Your task to perform on an android device: snooze an email in the gmail app Image 0: 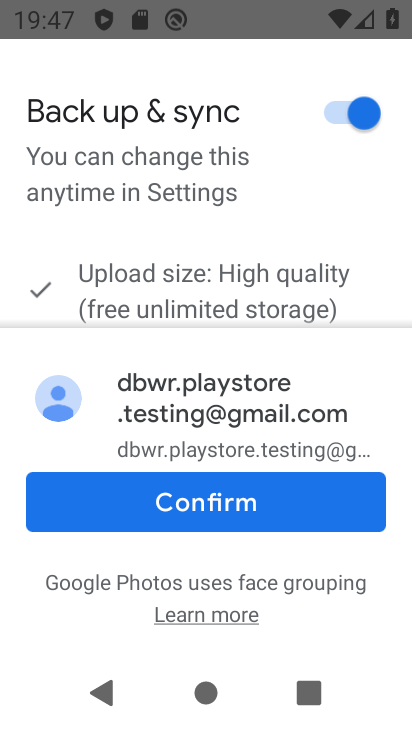
Step 0: press home button
Your task to perform on an android device: snooze an email in the gmail app Image 1: 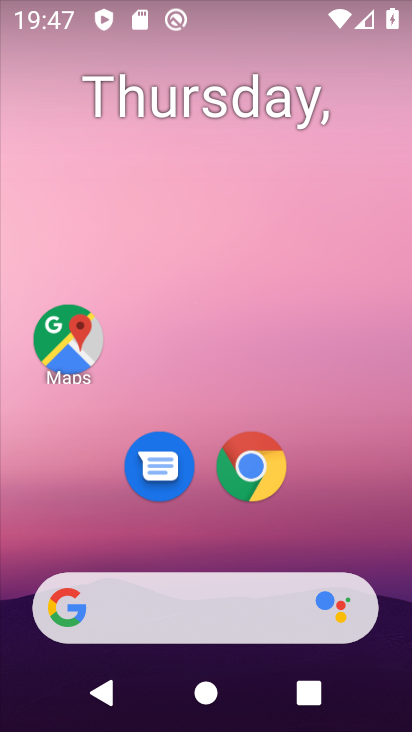
Step 1: drag from (318, 549) to (322, 123)
Your task to perform on an android device: snooze an email in the gmail app Image 2: 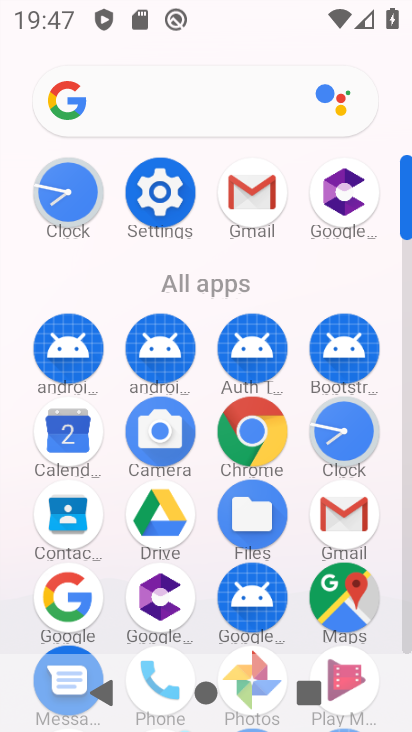
Step 2: click (242, 188)
Your task to perform on an android device: snooze an email in the gmail app Image 3: 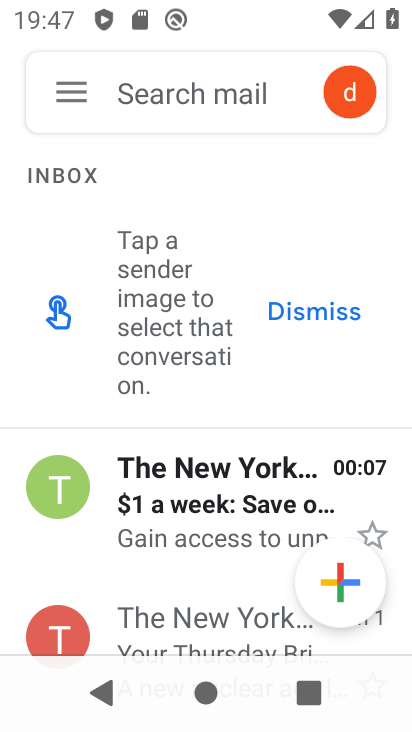
Step 3: click (69, 97)
Your task to perform on an android device: snooze an email in the gmail app Image 4: 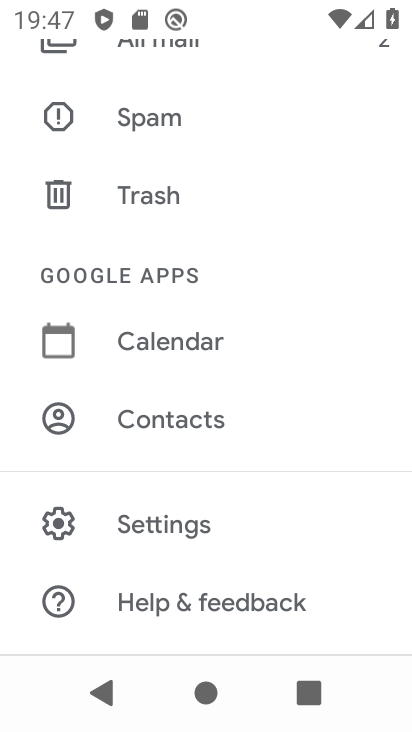
Step 4: drag from (332, 110) to (281, 658)
Your task to perform on an android device: snooze an email in the gmail app Image 5: 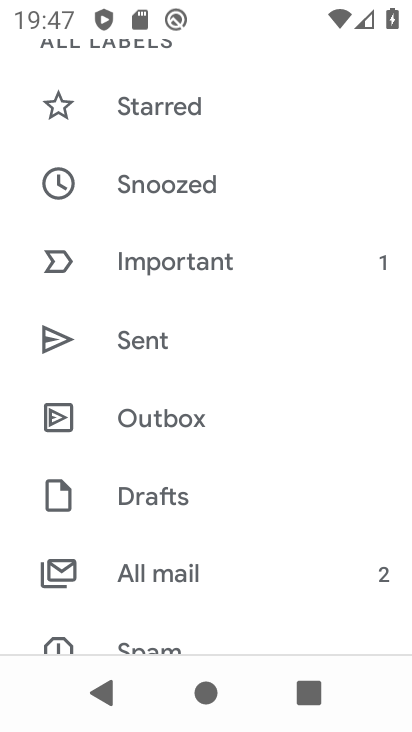
Step 5: click (181, 174)
Your task to perform on an android device: snooze an email in the gmail app Image 6: 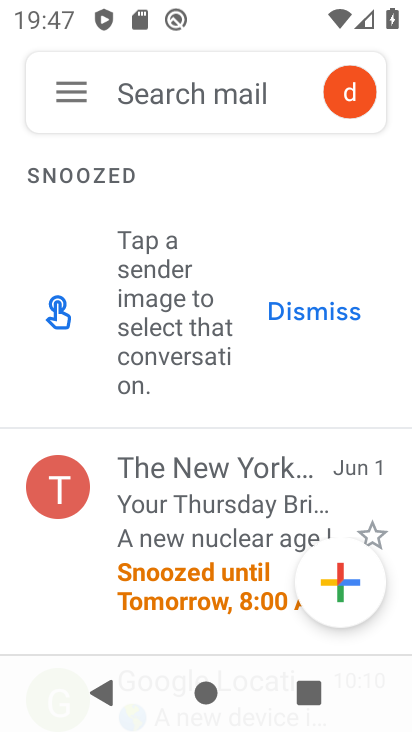
Step 6: click (116, 505)
Your task to perform on an android device: snooze an email in the gmail app Image 7: 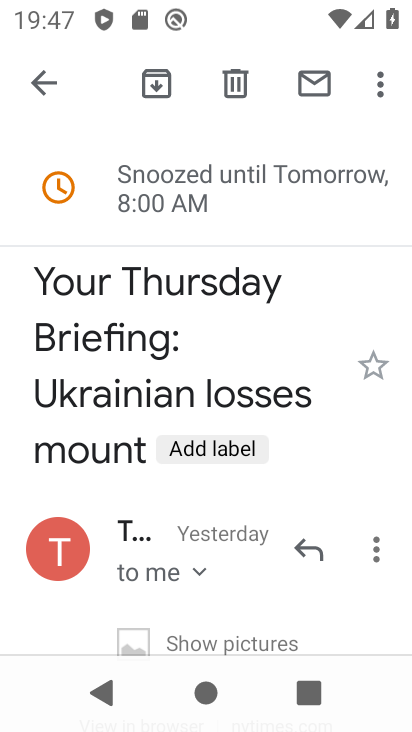
Step 7: task complete